Your task to perform on an android device: open a bookmark in the chrome app Image 0: 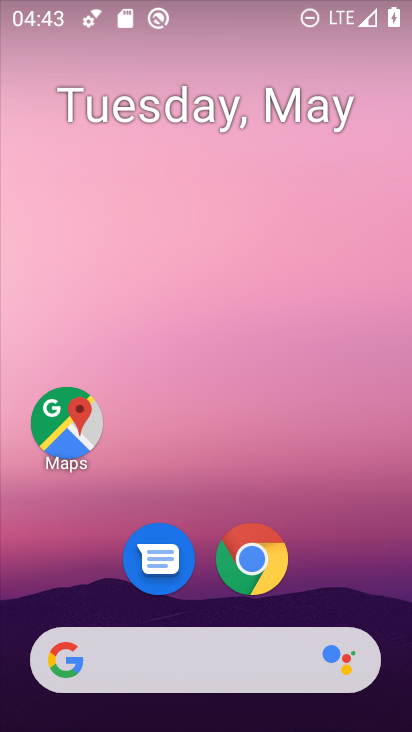
Step 0: click (250, 563)
Your task to perform on an android device: open a bookmark in the chrome app Image 1: 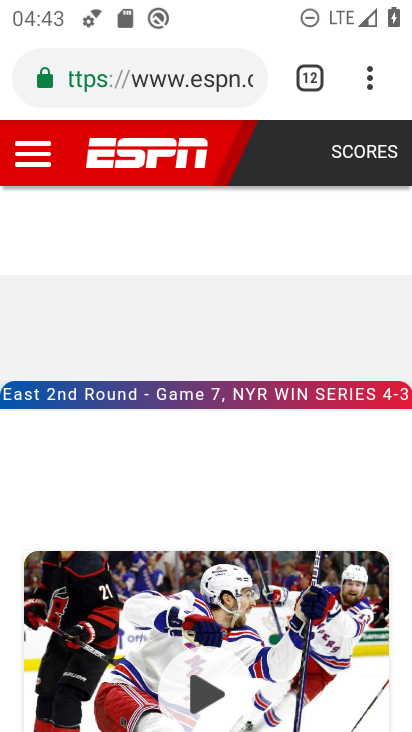
Step 1: click (371, 82)
Your task to perform on an android device: open a bookmark in the chrome app Image 2: 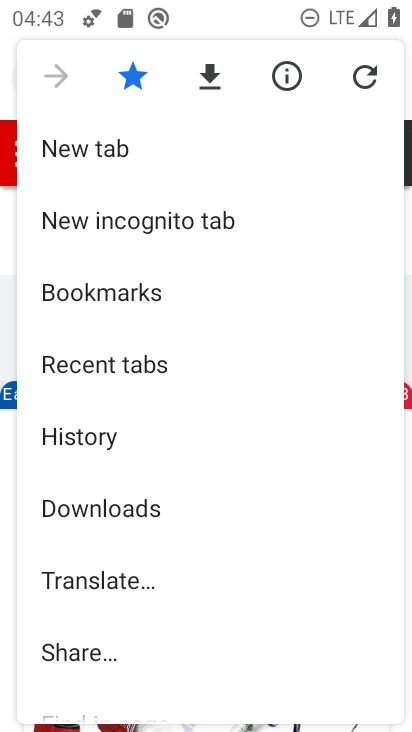
Step 2: click (116, 289)
Your task to perform on an android device: open a bookmark in the chrome app Image 3: 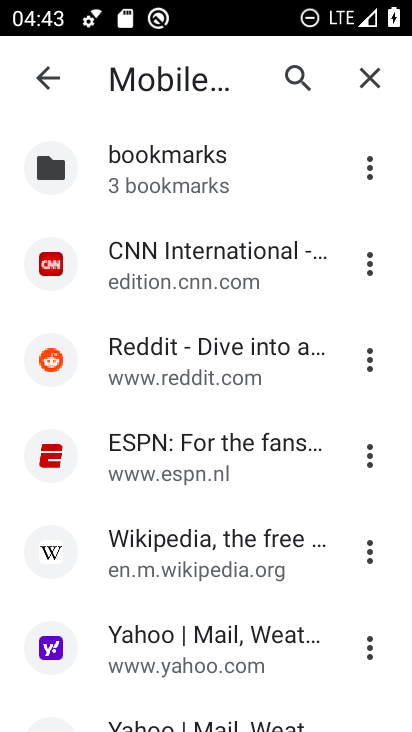
Step 3: click (186, 256)
Your task to perform on an android device: open a bookmark in the chrome app Image 4: 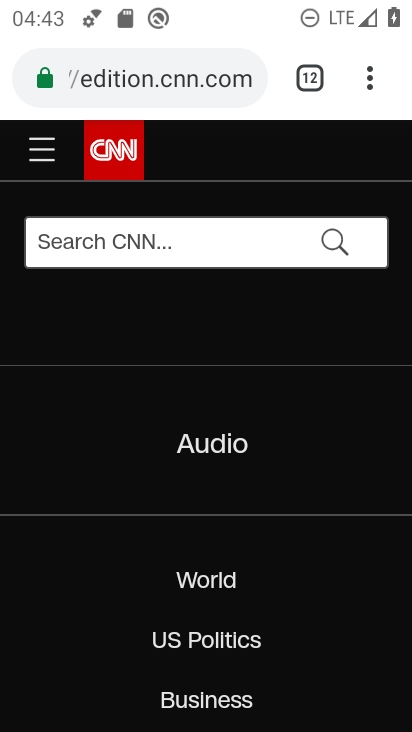
Step 4: task complete